Your task to perform on an android device: set an alarm Image 0: 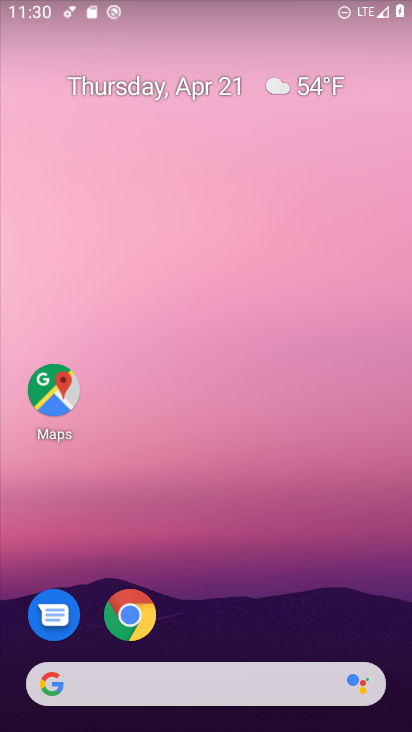
Step 0: drag from (287, 627) to (274, 175)
Your task to perform on an android device: set an alarm Image 1: 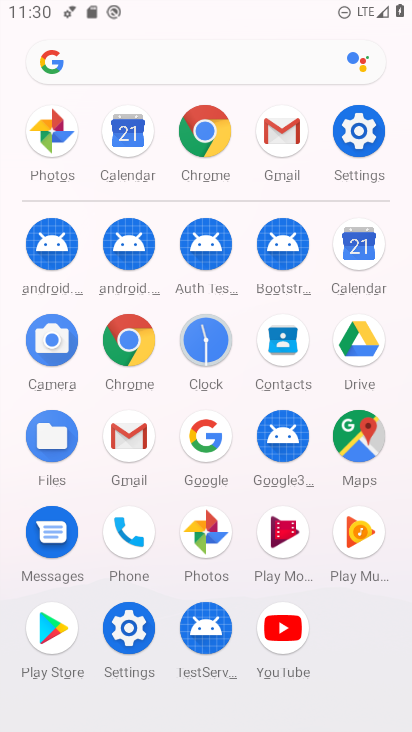
Step 1: click (212, 345)
Your task to perform on an android device: set an alarm Image 2: 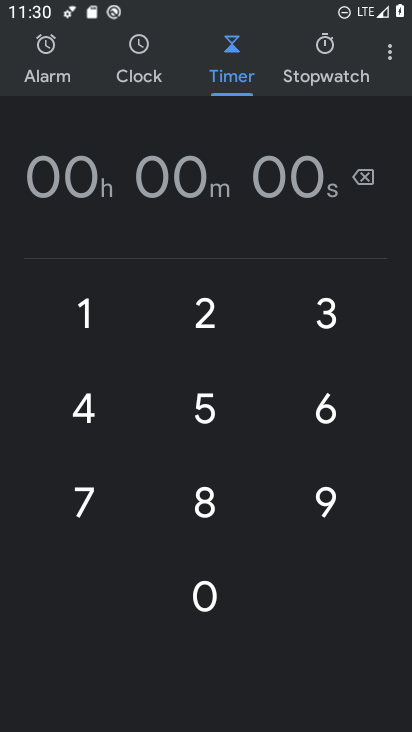
Step 2: click (42, 76)
Your task to perform on an android device: set an alarm Image 3: 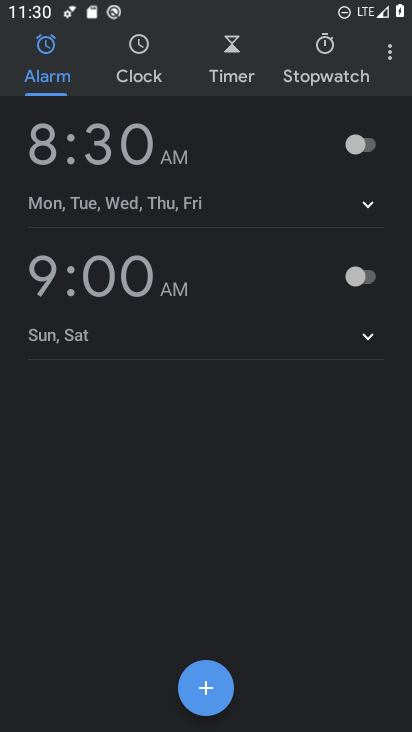
Step 3: click (204, 693)
Your task to perform on an android device: set an alarm Image 4: 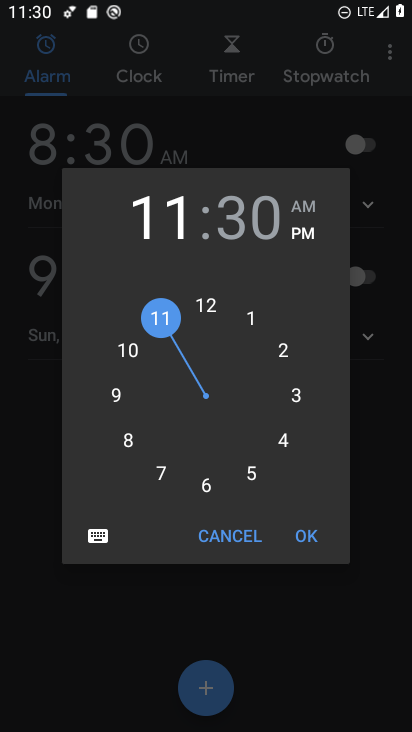
Step 4: click (301, 534)
Your task to perform on an android device: set an alarm Image 5: 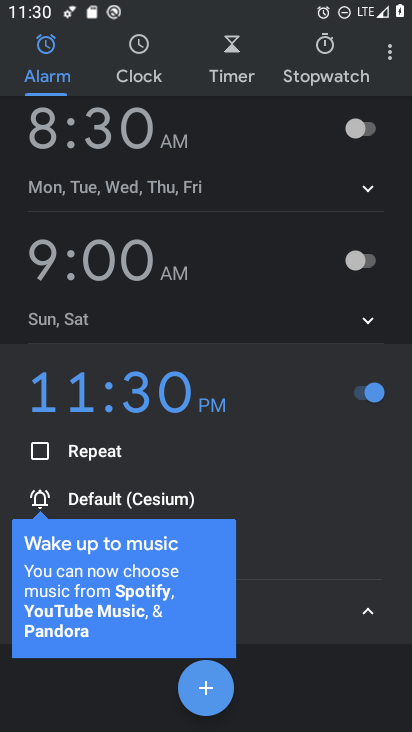
Step 5: click (359, 609)
Your task to perform on an android device: set an alarm Image 6: 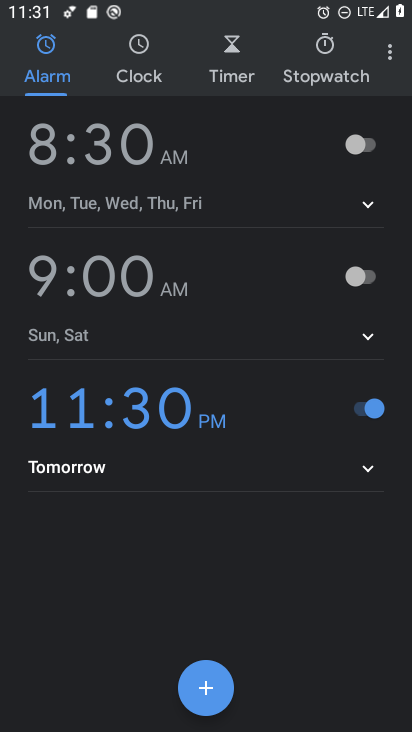
Step 6: task complete